Your task to perform on an android device: Go to settings Image 0: 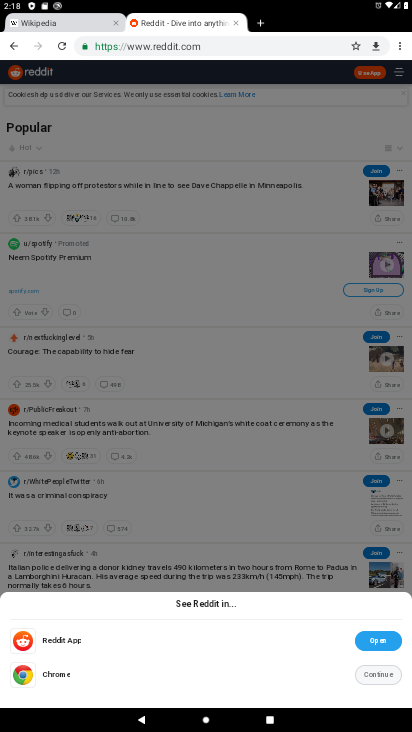
Step 0: press home button
Your task to perform on an android device: Go to settings Image 1: 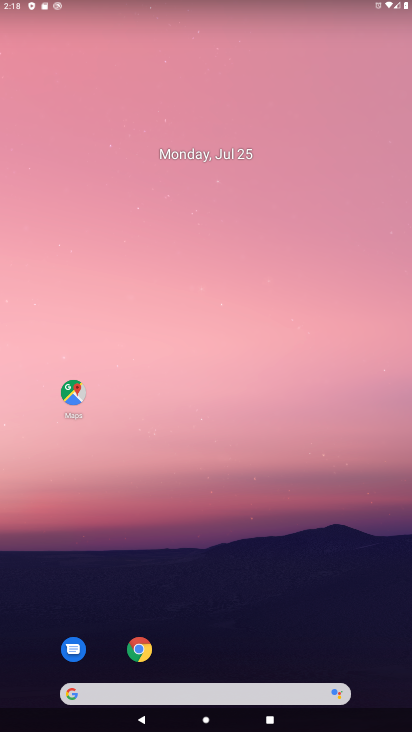
Step 1: drag from (375, 653) to (297, 273)
Your task to perform on an android device: Go to settings Image 2: 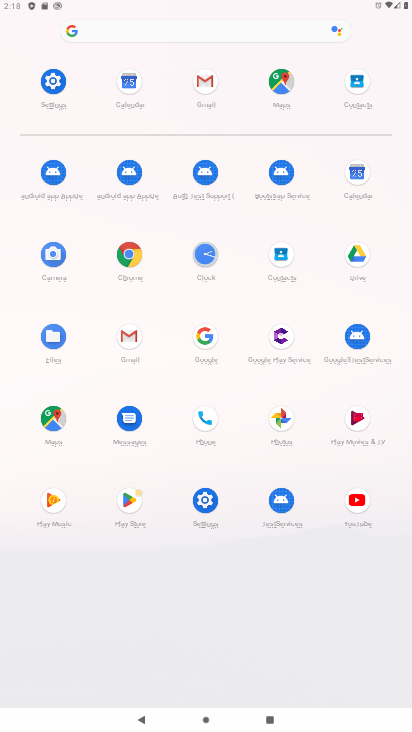
Step 2: click (204, 502)
Your task to perform on an android device: Go to settings Image 3: 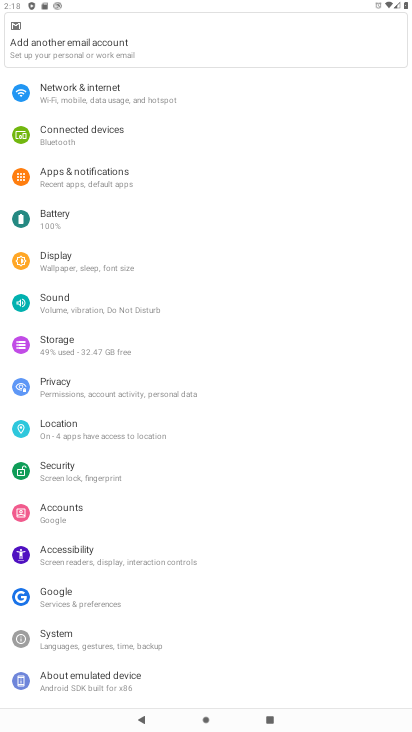
Step 3: task complete